Your task to perform on an android device: open app "Airtel Thanks" Image 0: 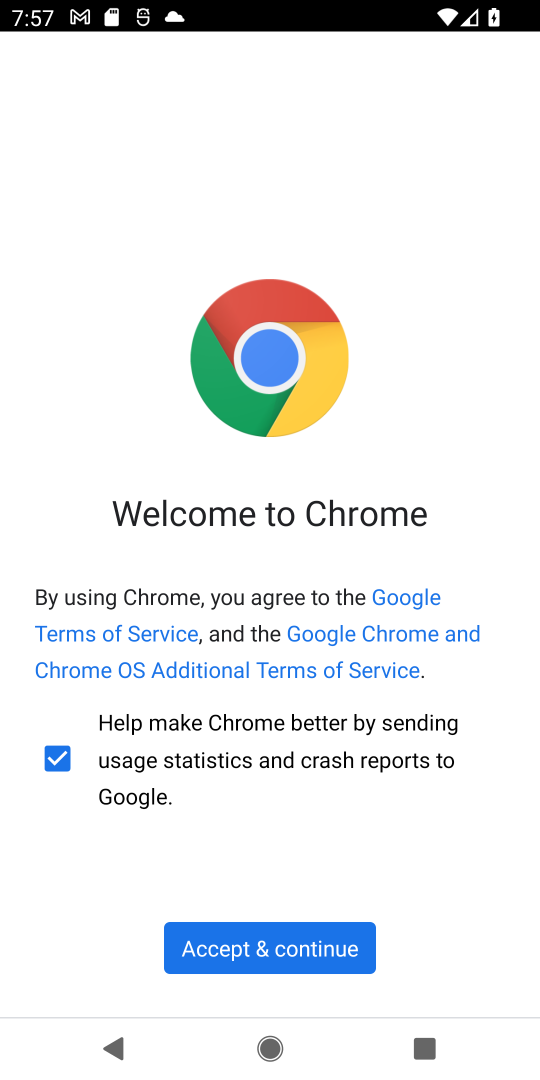
Step 0: press home button
Your task to perform on an android device: open app "Airtel Thanks" Image 1: 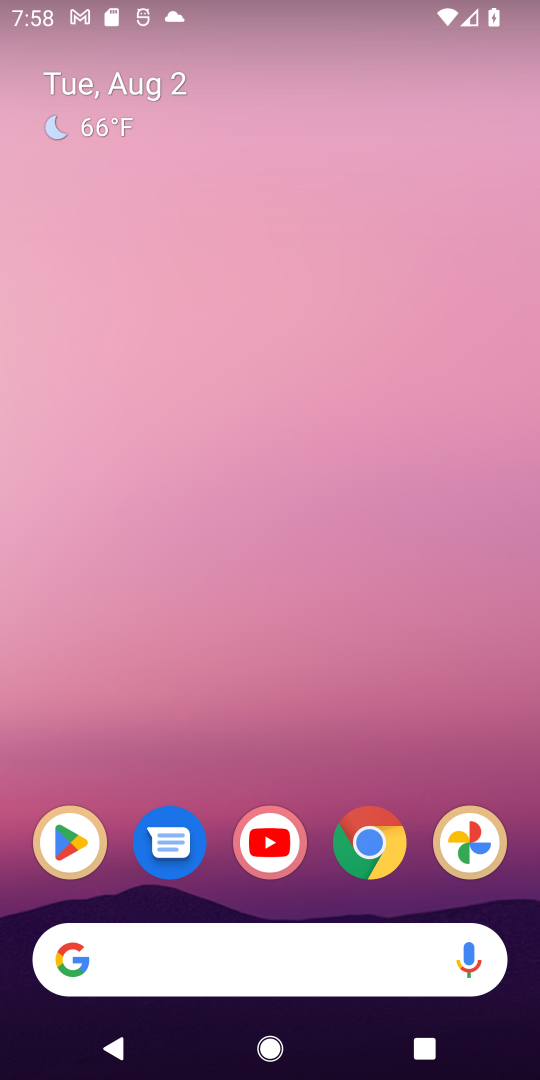
Step 1: click (84, 828)
Your task to perform on an android device: open app "Airtel Thanks" Image 2: 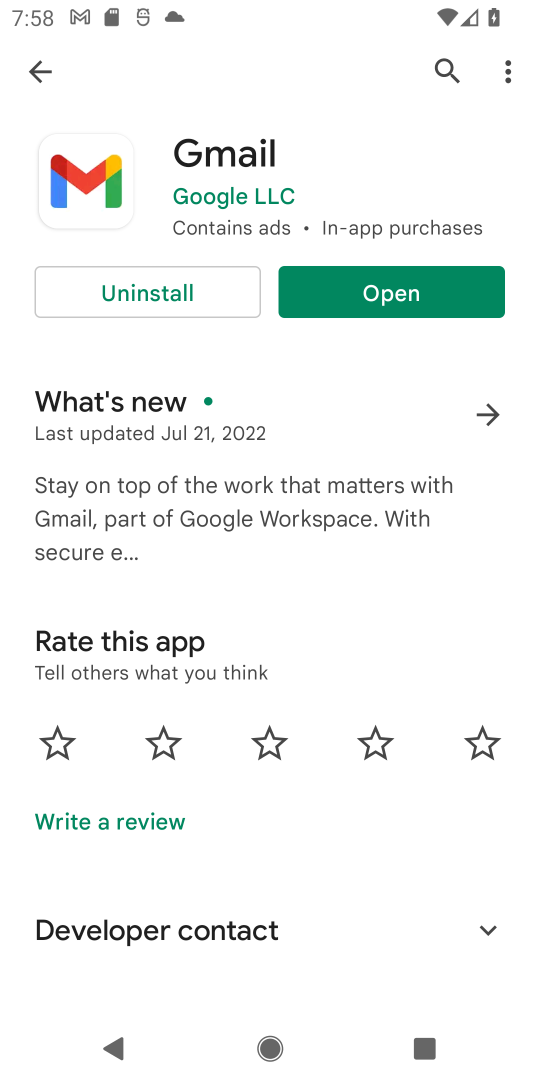
Step 2: click (40, 66)
Your task to perform on an android device: open app "Airtel Thanks" Image 3: 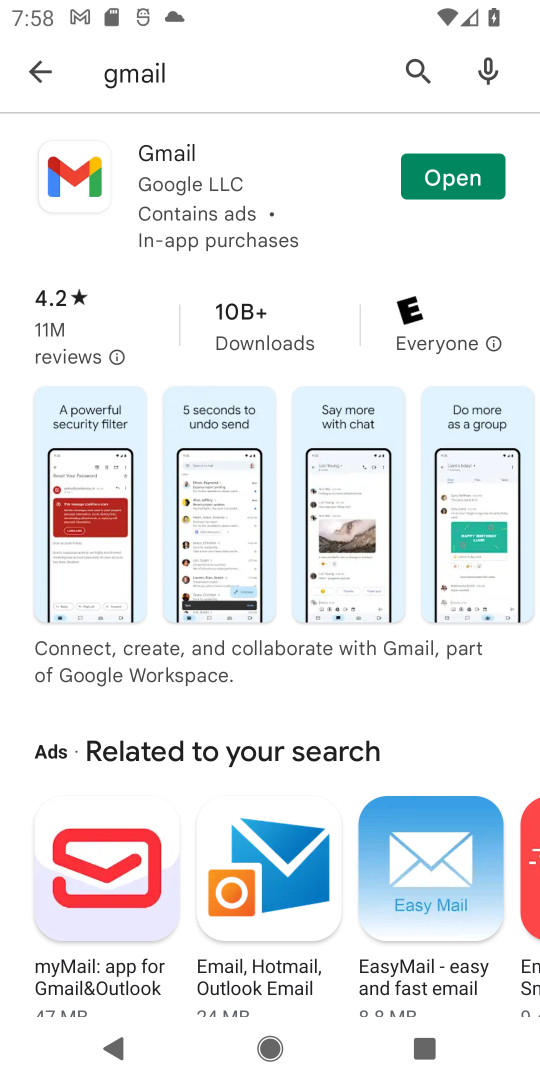
Step 3: click (122, 70)
Your task to perform on an android device: open app "Airtel Thanks" Image 4: 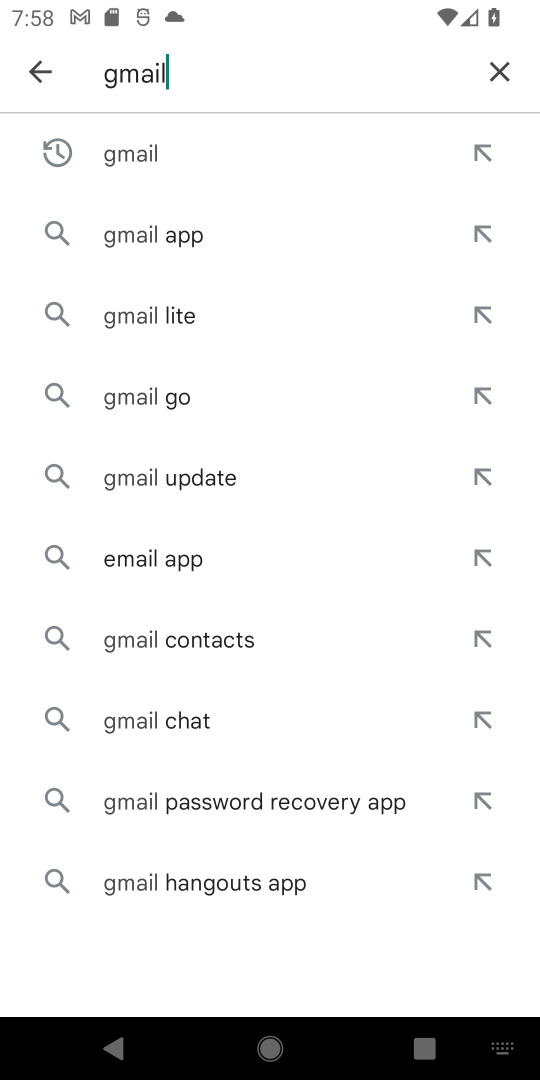
Step 4: click (493, 70)
Your task to perform on an android device: open app "Airtel Thanks" Image 5: 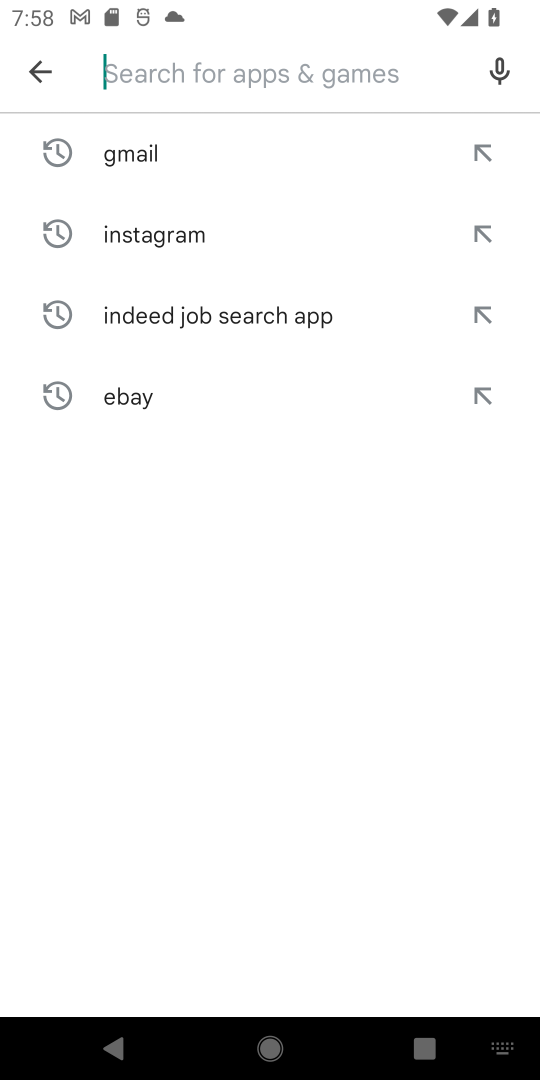
Step 5: type "Airtel Thanks"
Your task to perform on an android device: open app "Airtel Thanks" Image 6: 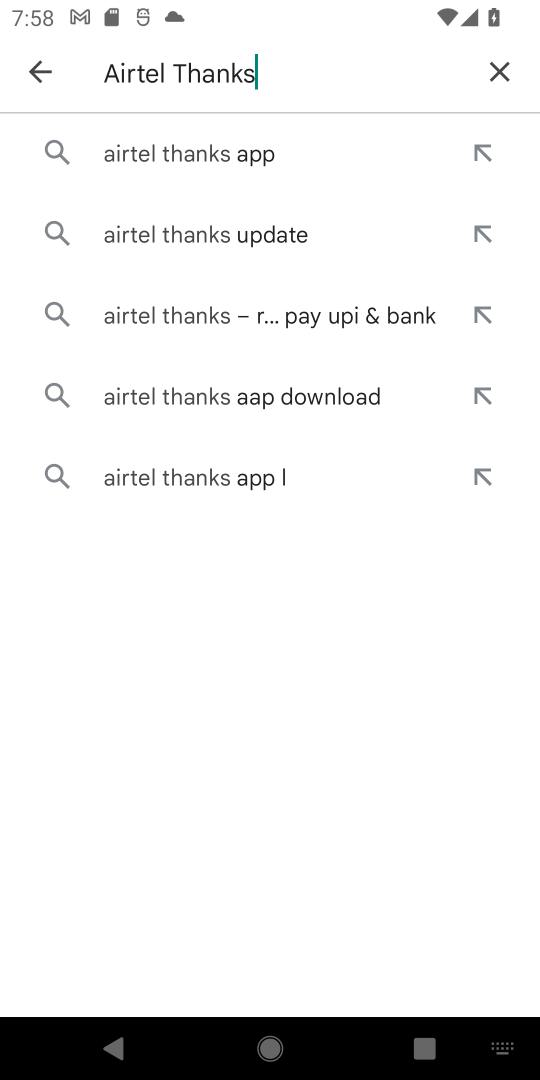
Step 6: click (217, 161)
Your task to perform on an android device: open app "Airtel Thanks" Image 7: 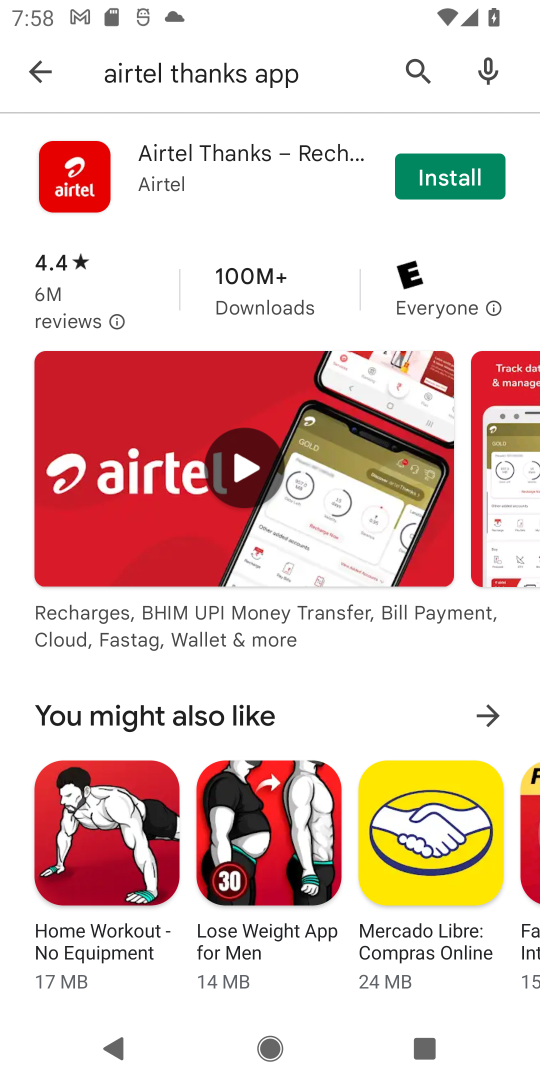
Step 7: task complete